Your task to perform on an android device: Find coffee shops on Maps Image 0: 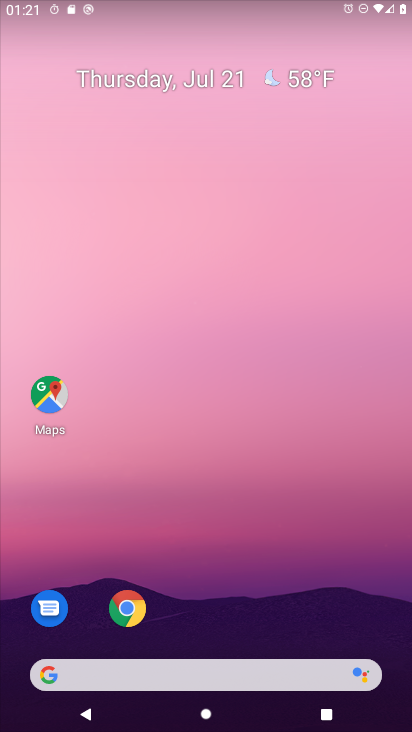
Step 0: press home button
Your task to perform on an android device: Find coffee shops on Maps Image 1: 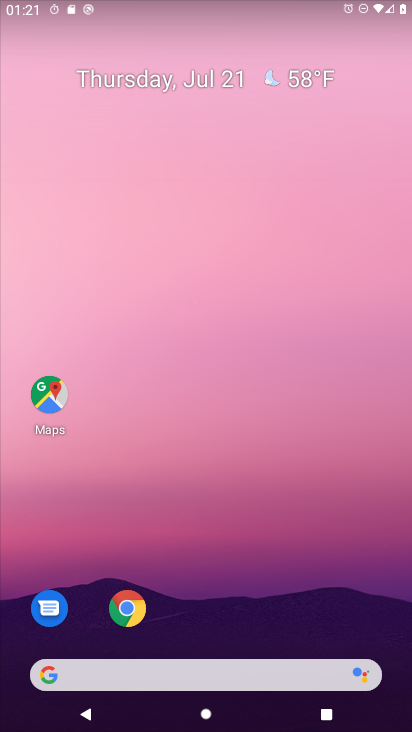
Step 1: drag from (202, 641) to (161, 118)
Your task to perform on an android device: Find coffee shops on Maps Image 2: 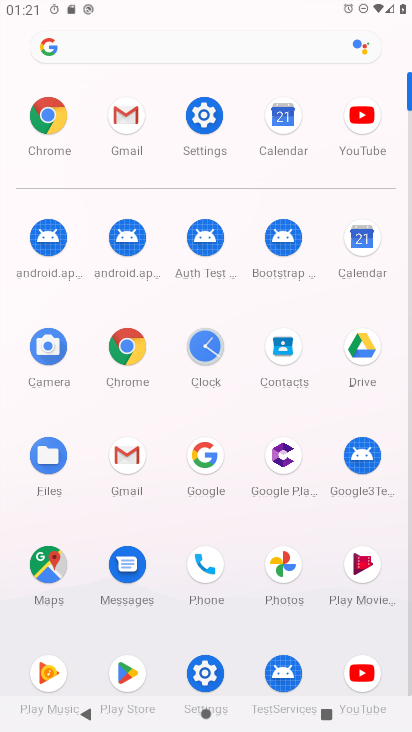
Step 2: click (48, 561)
Your task to perform on an android device: Find coffee shops on Maps Image 3: 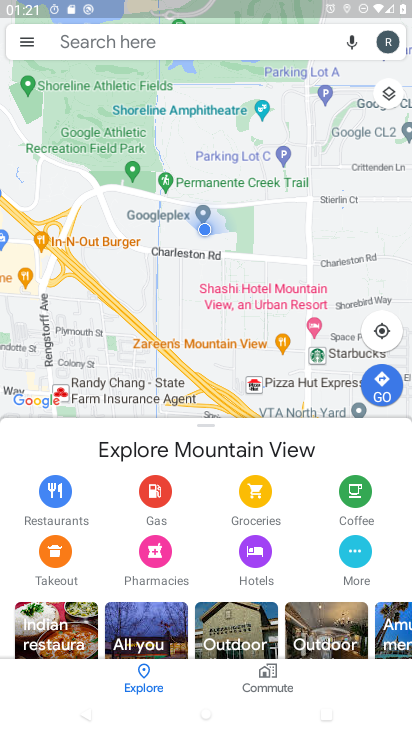
Step 3: click (143, 39)
Your task to perform on an android device: Find coffee shops on Maps Image 4: 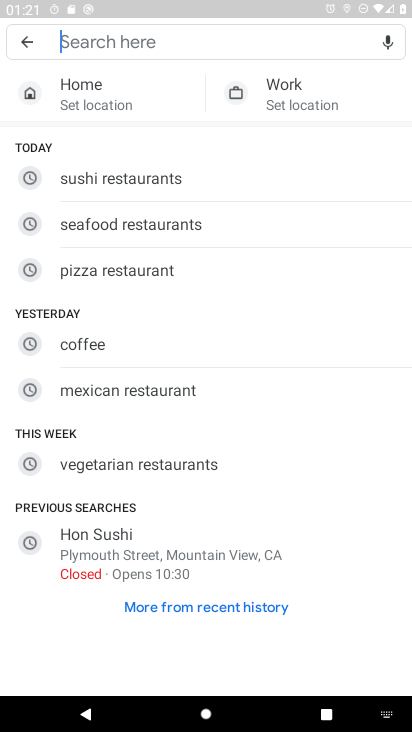
Step 4: type "coffee shops "
Your task to perform on an android device: Find coffee shops on Maps Image 5: 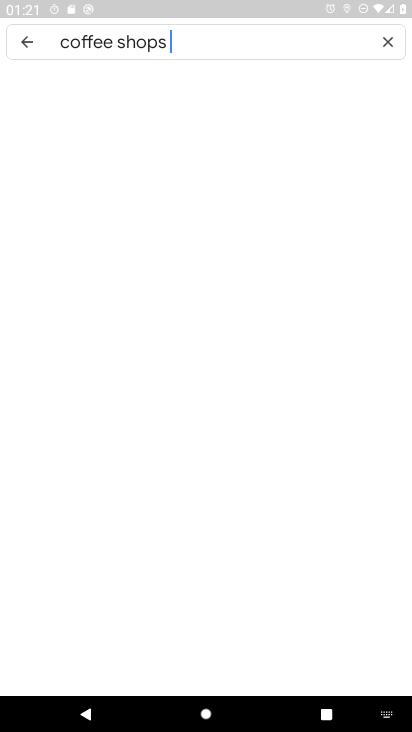
Step 5: press enter
Your task to perform on an android device: Find coffee shops on Maps Image 6: 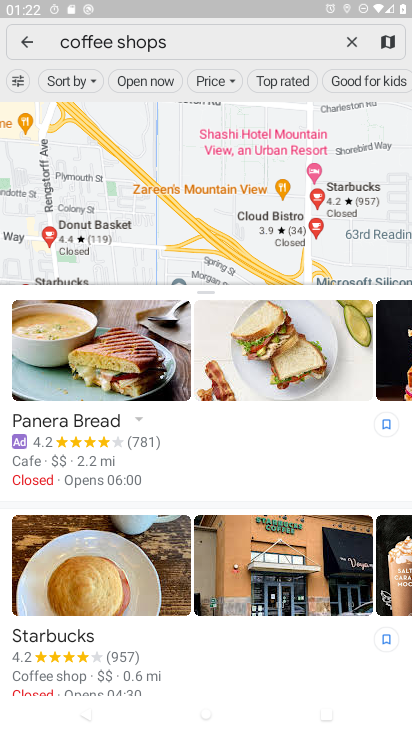
Step 6: task complete